Your task to perform on an android device: open app "Speedtest by Ookla" (install if not already installed) Image 0: 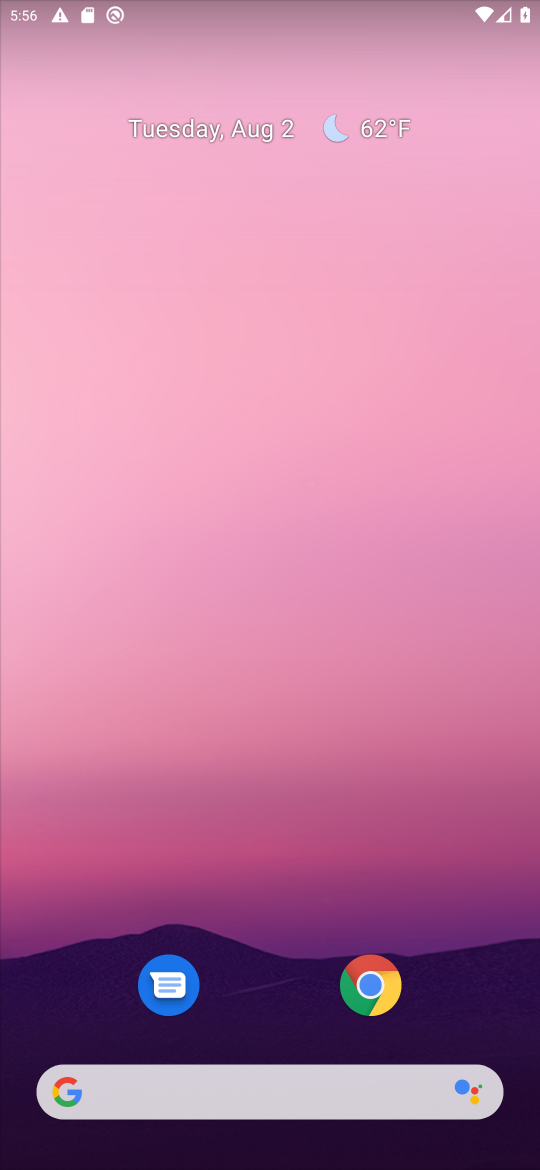
Step 0: drag from (285, 941) to (331, 268)
Your task to perform on an android device: open app "Speedtest by Ookla" (install if not already installed) Image 1: 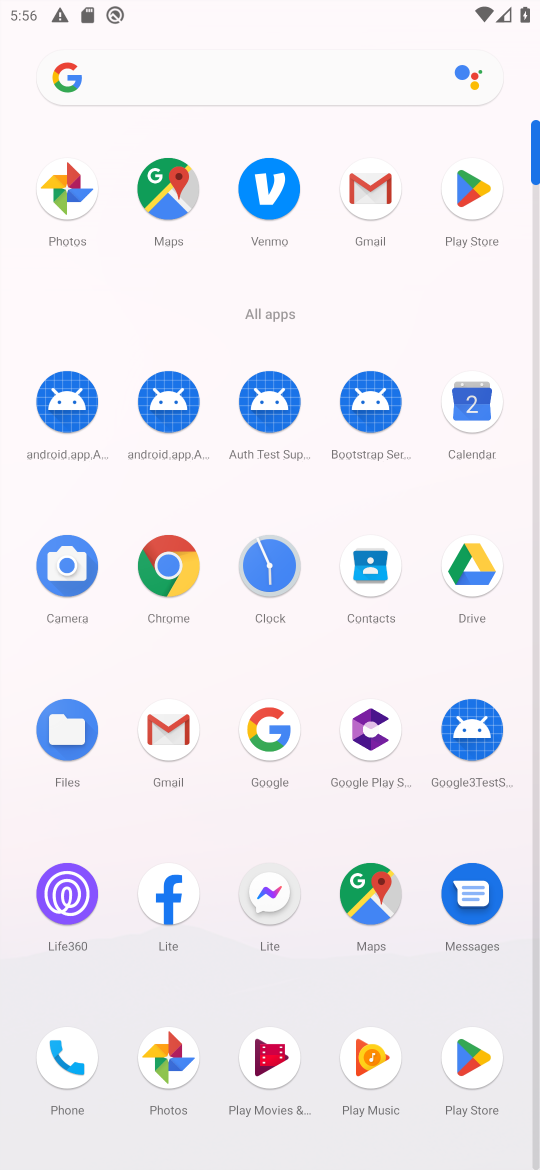
Step 1: click (439, 187)
Your task to perform on an android device: open app "Speedtest by Ookla" (install if not already installed) Image 2: 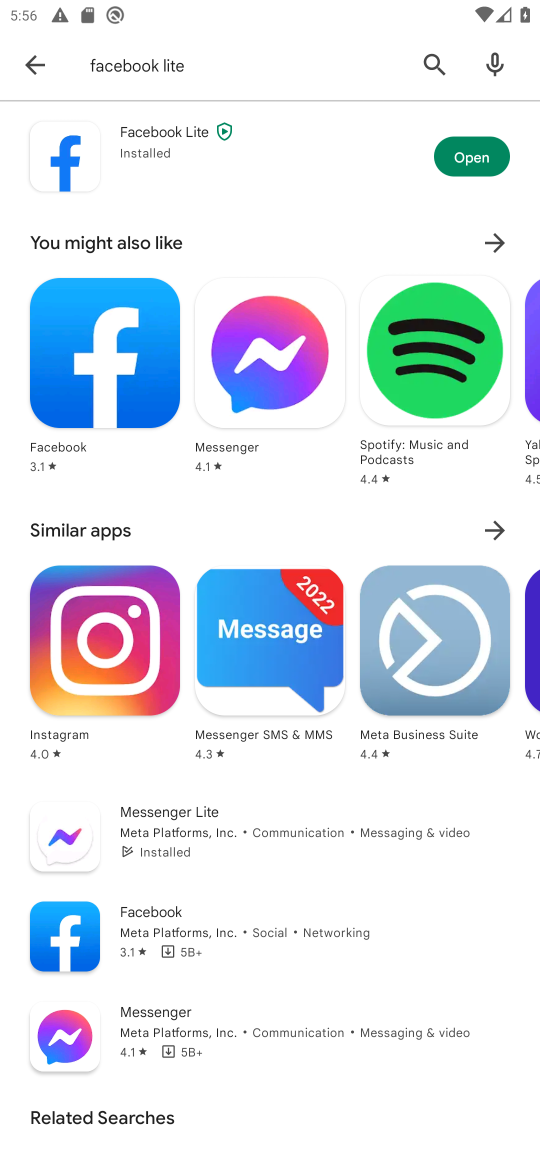
Step 2: click (413, 57)
Your task to perform on an android device: open app "Speedtest by Ookla" (install if not already installed) Image 3: 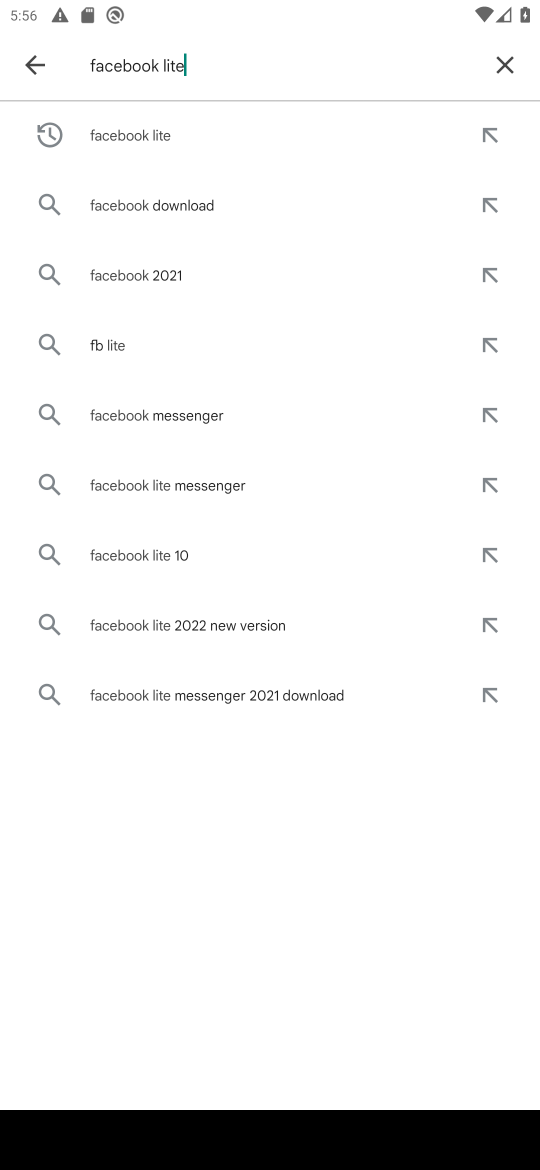
Step 3: click (496, 71)
Your task to perform on an android device: open app "Speedtest by Ookla" (install if not already installed) Image 4: 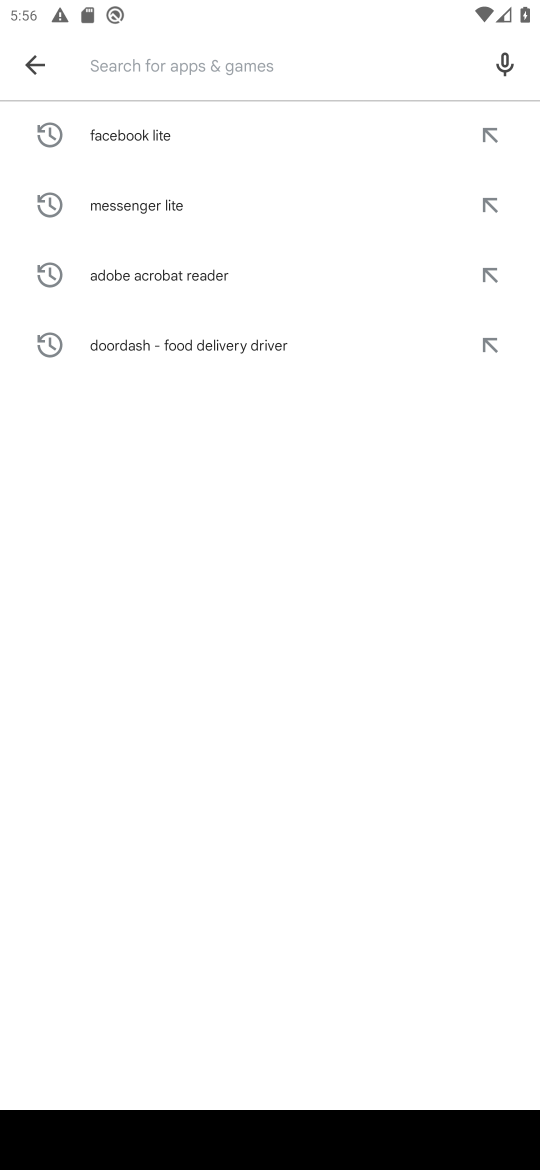
Step 4: type "Speedtest by Ookla"
Your task to perform on an android device: open app "Speedtest by Ookla" (install if not already installed) Image 5: 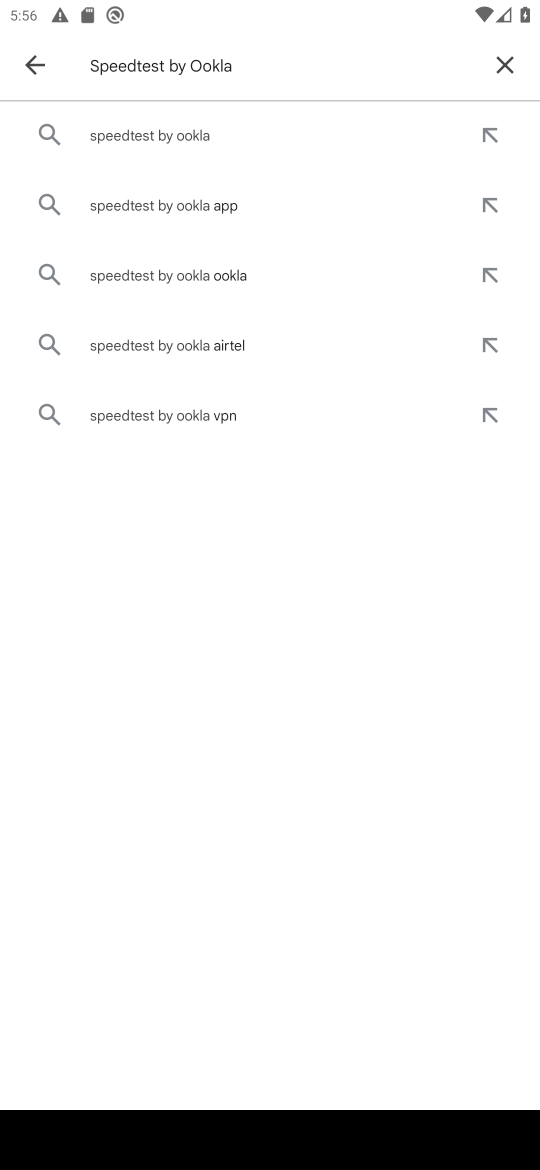
Step 5: click (259, 143)
Your task to perform on an android device: open app "Speedtest by Ookla" (install if not already installed) Image 6: 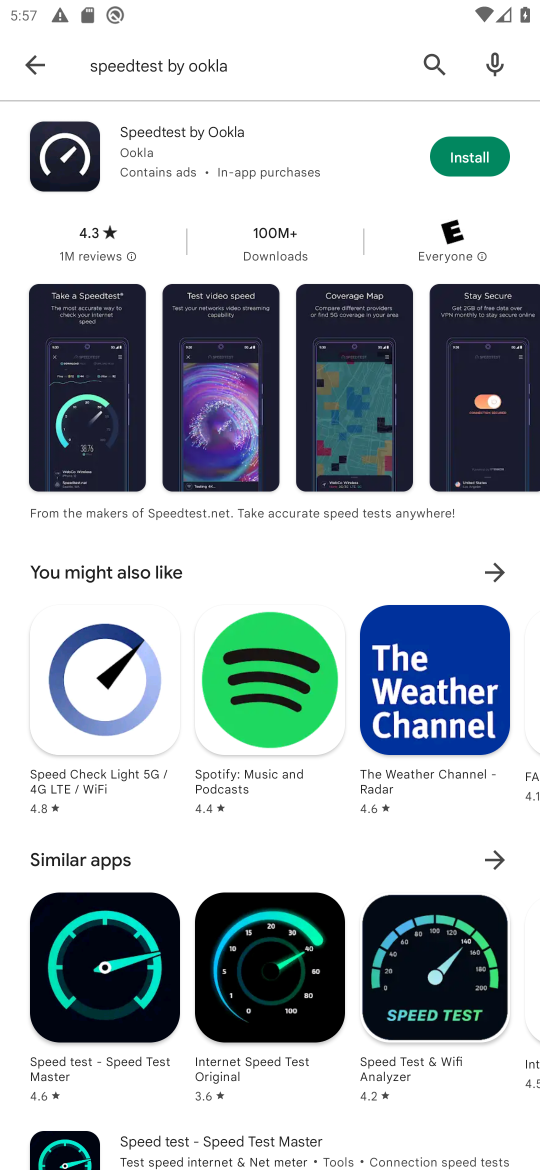
Step 6: click (461, 155)
Your task to perform on an android device: open app "Speedtest by Ookla" (install if not already installed) Image 7: 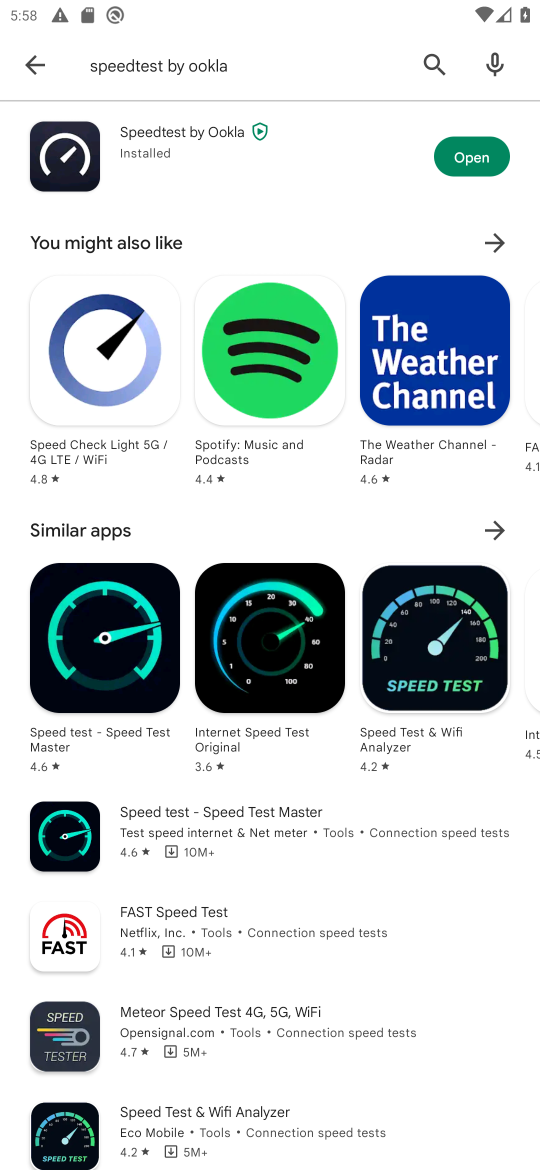
Step 7: click (446, 138)
Your task to perform on an android device: open app "Speedtest by Ookla" (install if not already installed) Image 8: 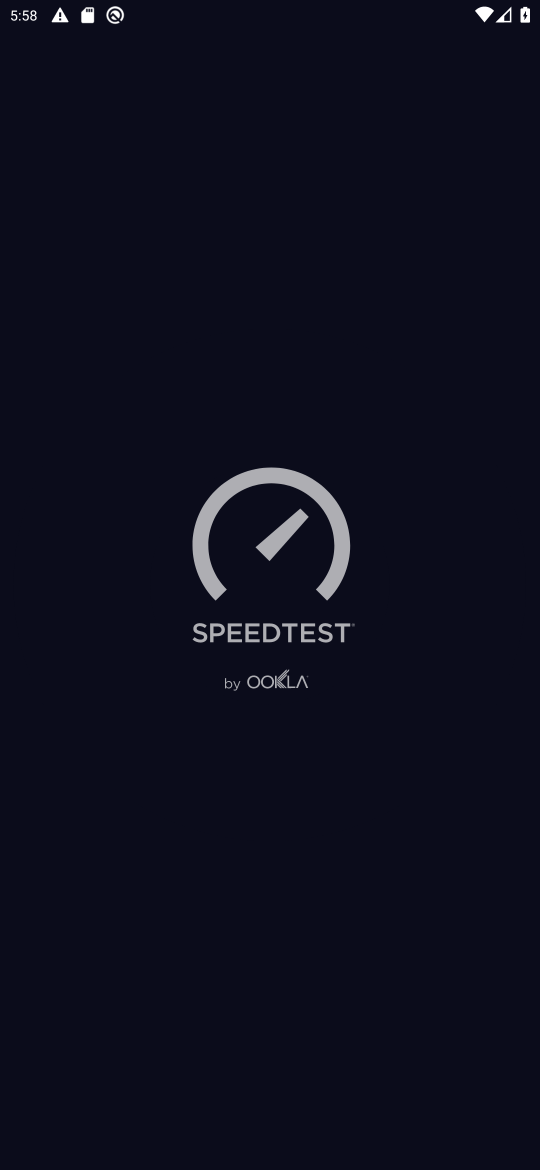
Step 8: task complete